Your task to perform on an android device: Add logitech g502 to the cart on costco.com, then select checkout. Image 0: 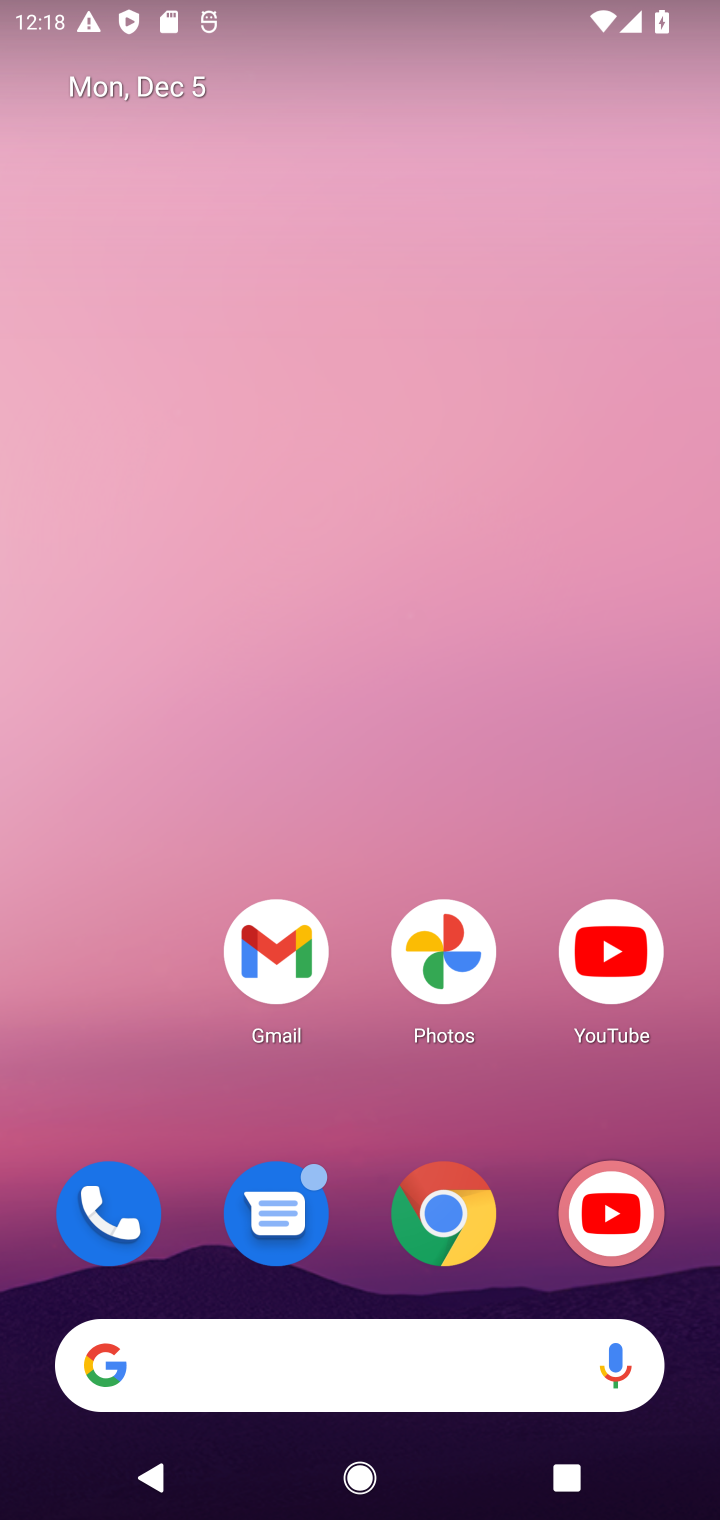
Step 0: click (428, 1213)
Your task to perform on an android device: Add logitech g502 to the cart on costco.com, then select checkout. Image 1: 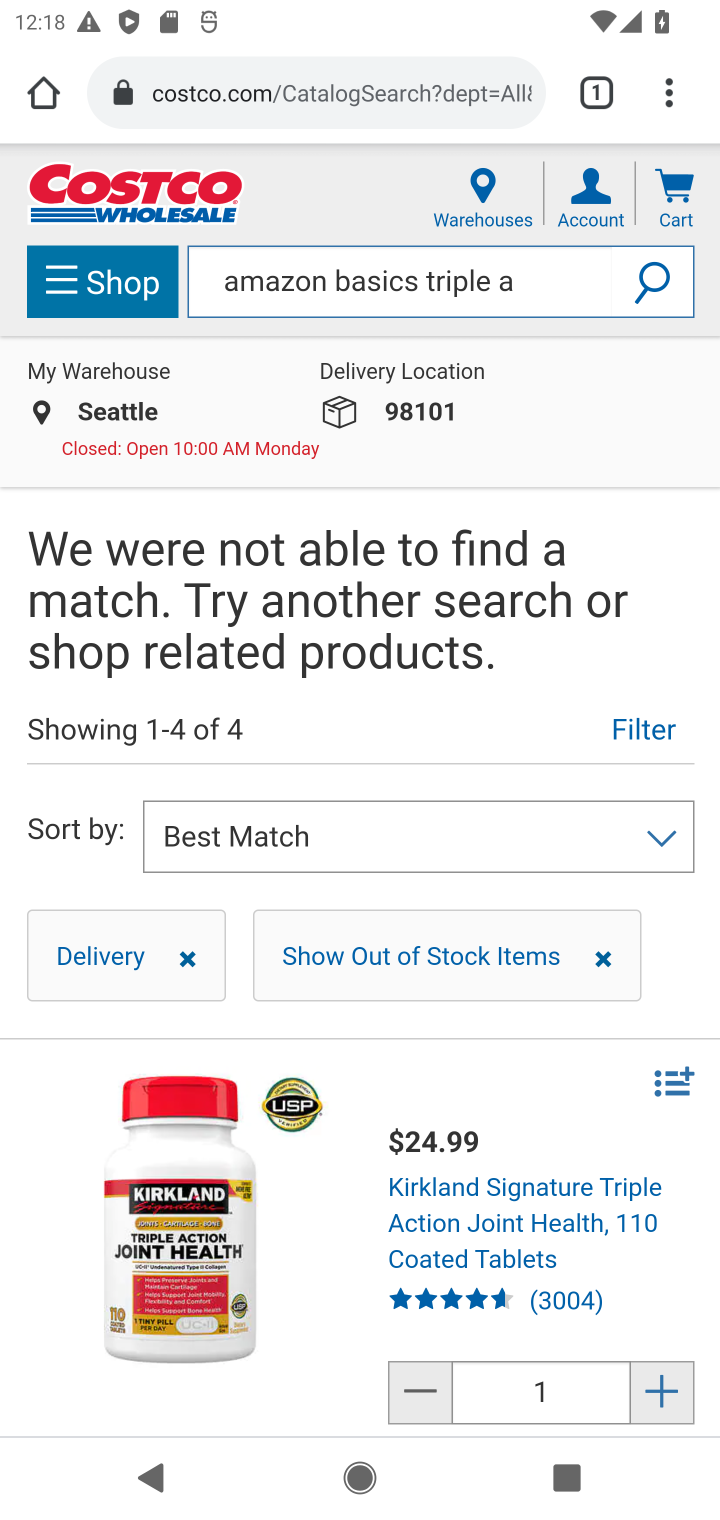
Step 1: click (367, 291)
Your task to perform on an android device: Add logitech g502 to the cart on costco.com, then select checkout. Image 2: 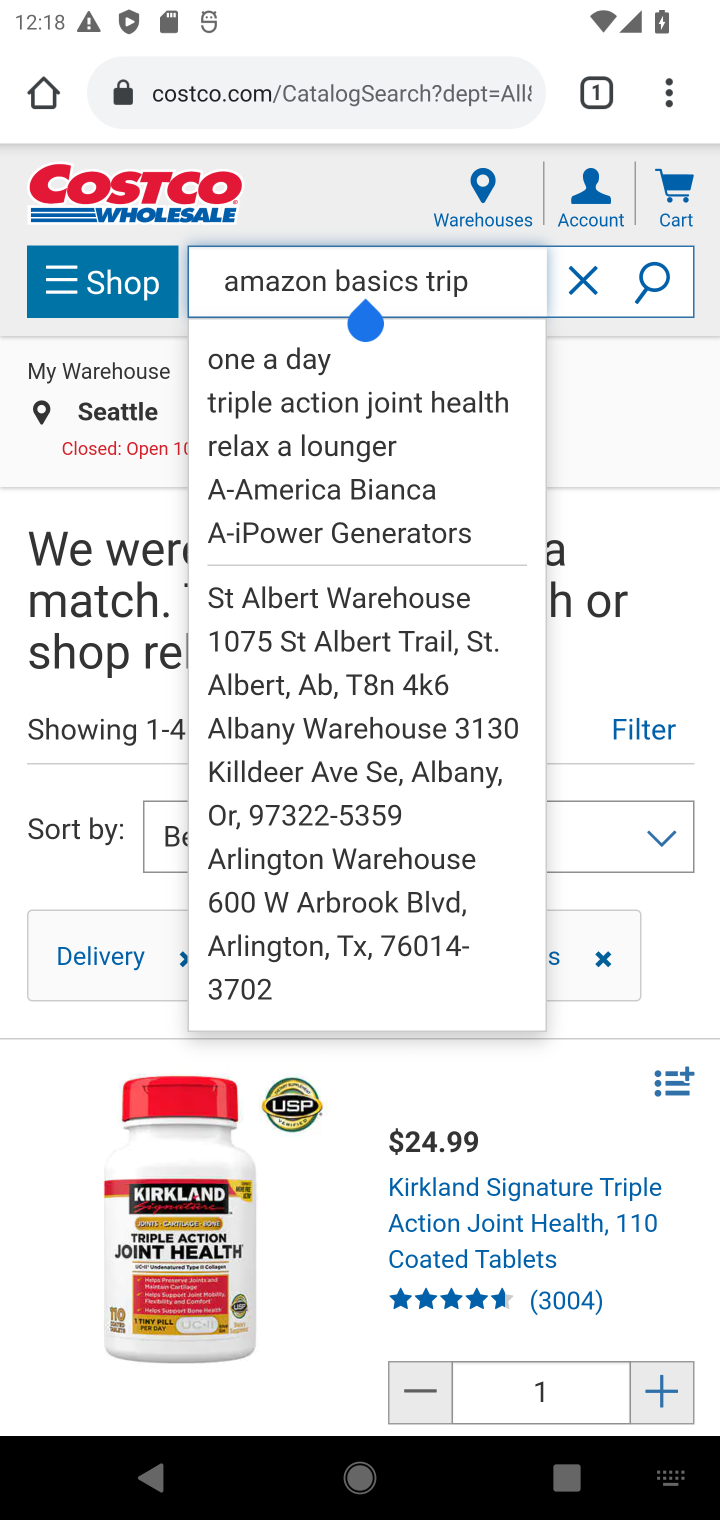
Step 2: click (594, 283)
Your task to perform on an android device: Add logitech g502 to the cart on costco.com, then select checkout. Image 3: 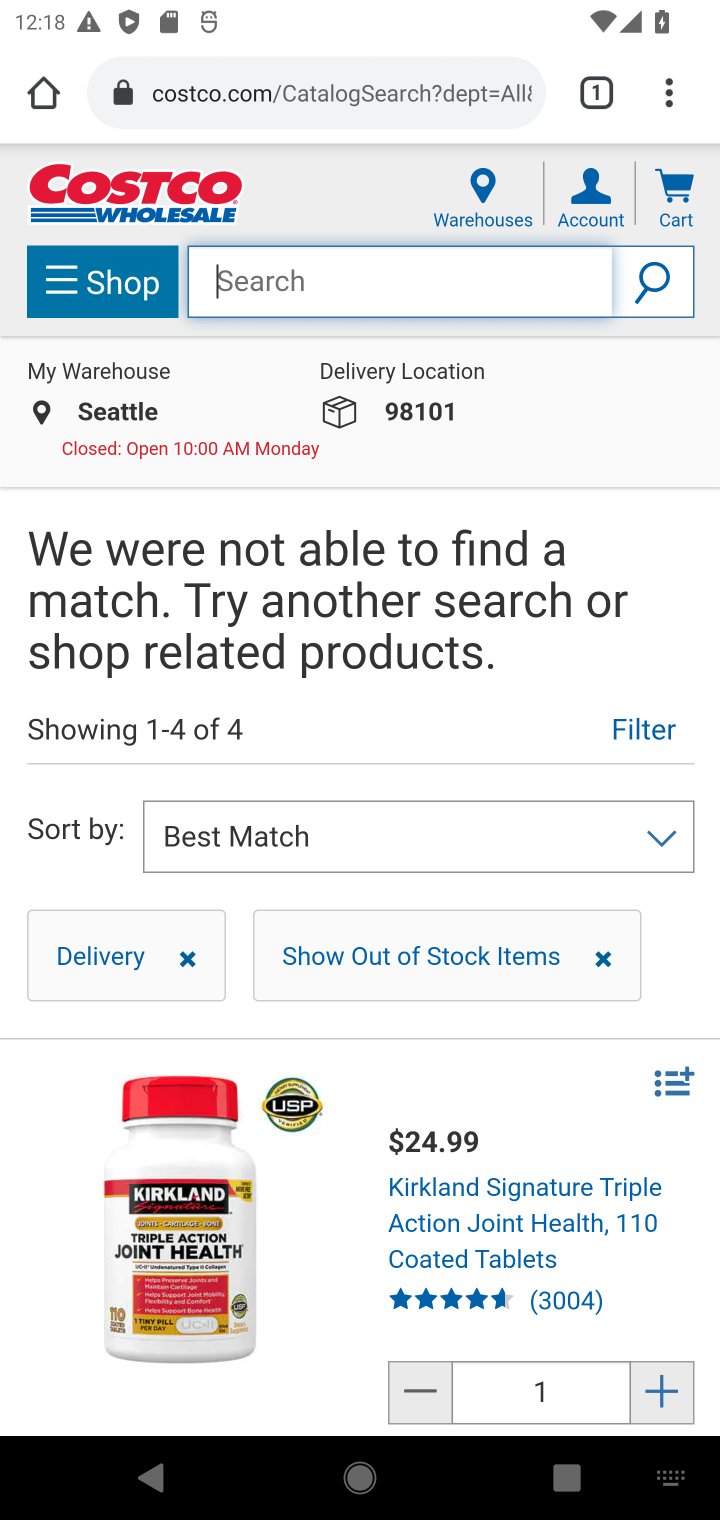
Step 3: type " logitech g502"
Your task to perform on an android device: Add logitech g502 to the cart on costco.com, then select checkout. Image 4: 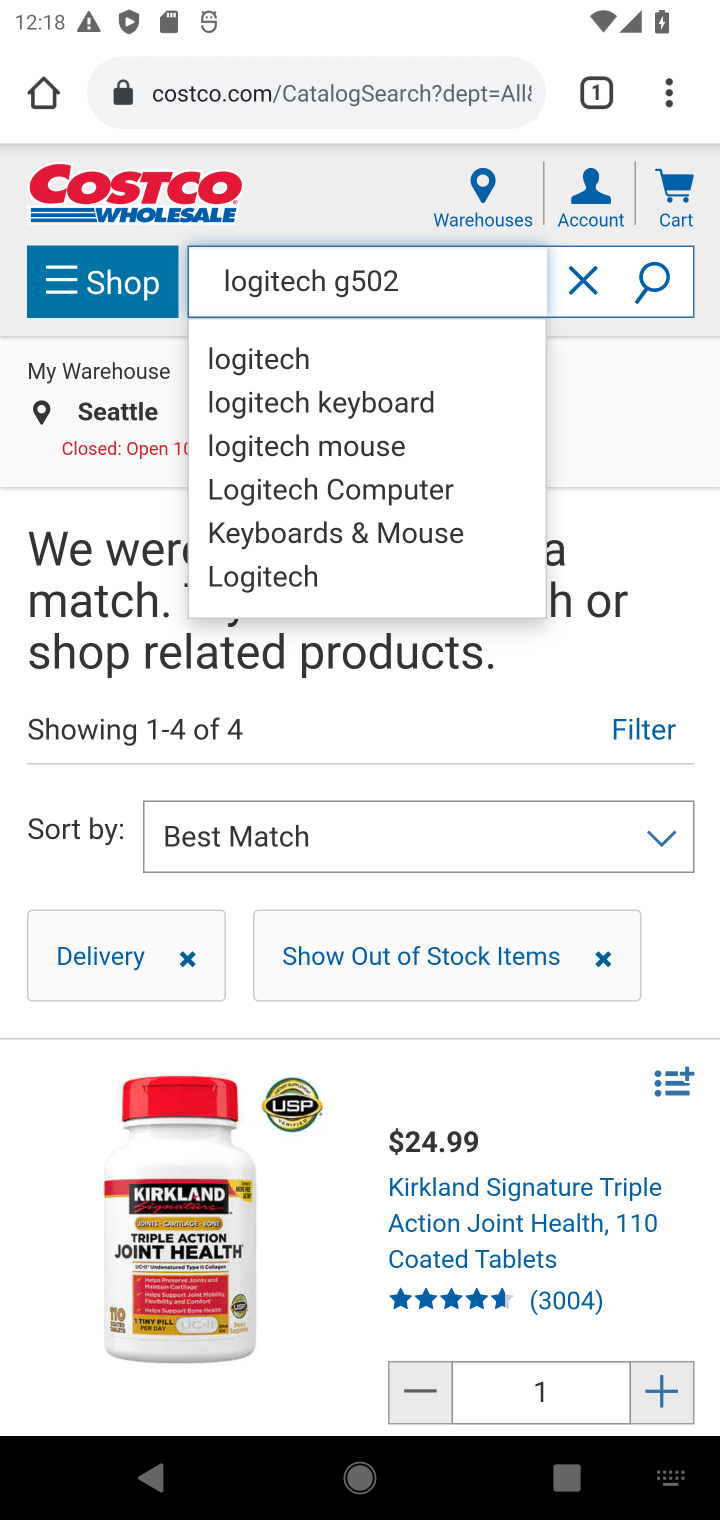
Step 4: click (654, 279)
Your task to perform on an android device: Add logitech g502 to the cart on costco.com, then select checkout. Image 5: 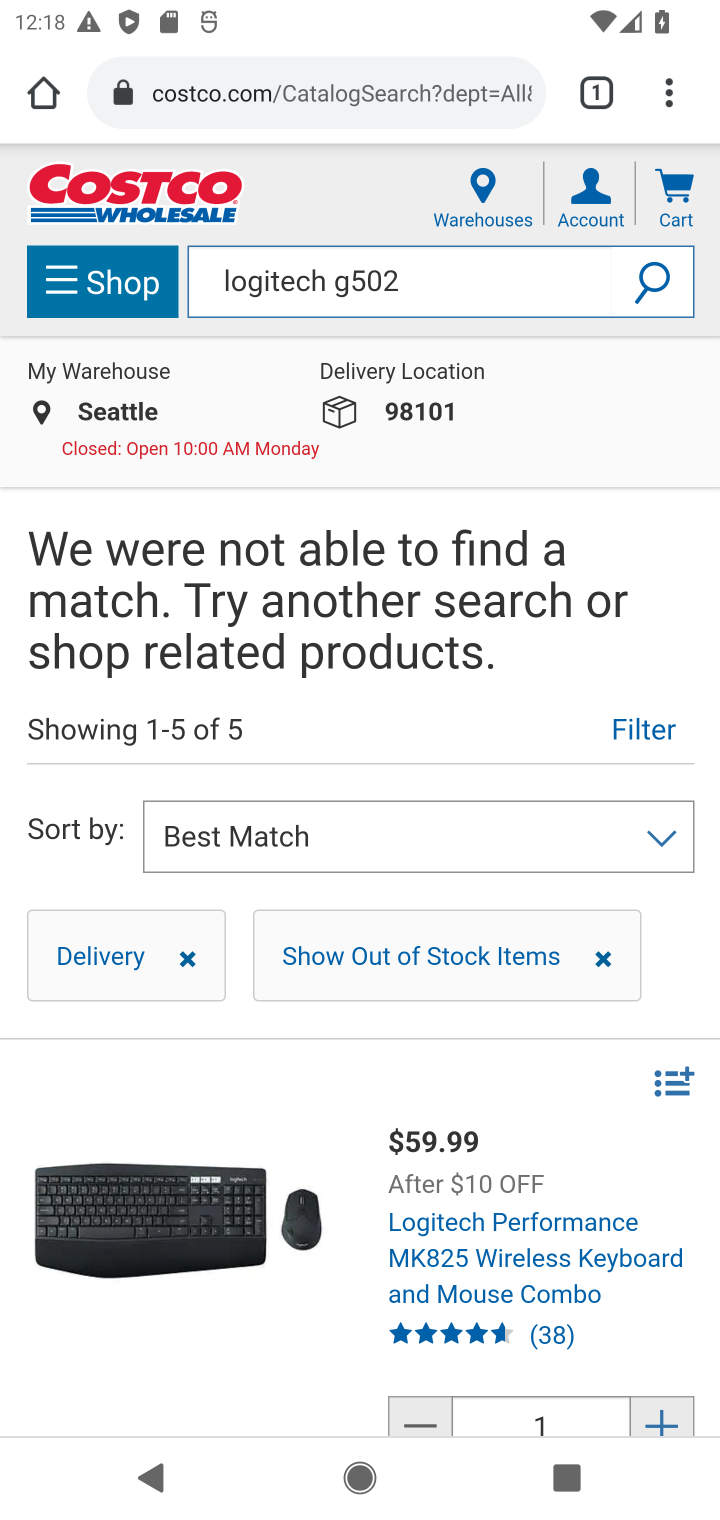
Step 5: task complete